Your task to perform on an android device: Open the phone app and click the voicemail tab. Image 0: 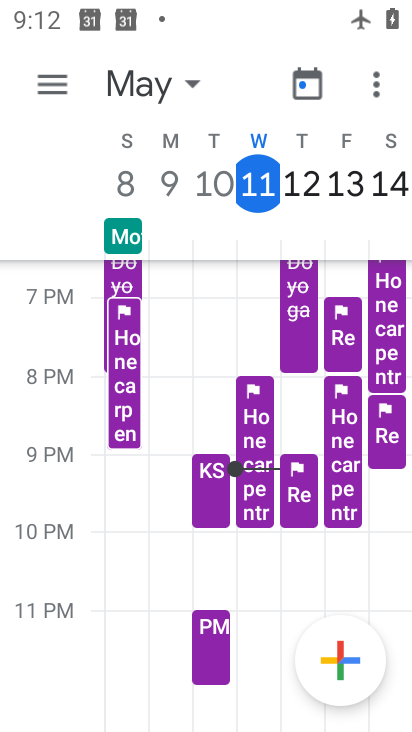
Step 0: press home button
Your task to perform on an android device: Open the phone app and click the voicemail tab. Image 1: 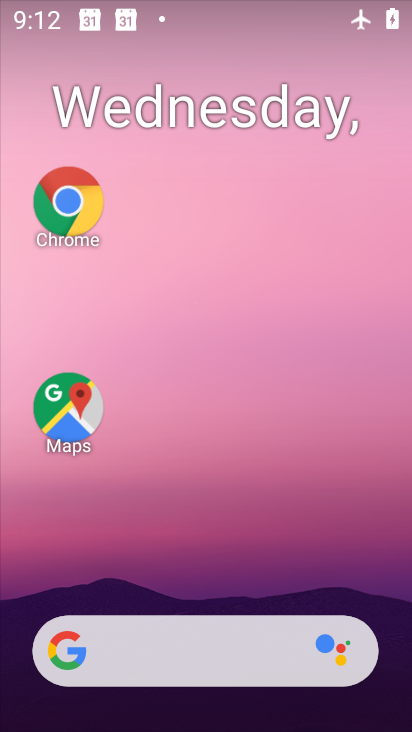
Step 1: drag from (184, 599) to (17, 111)
Your task to perform on an android device: Open the phone app and click the voicemail tab. Image 2: 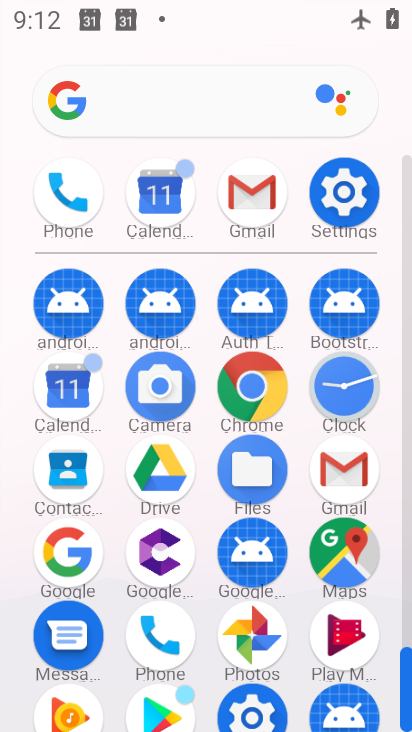
Step 2: click (167, 624)
Your task to perform on an android device: Open the phone app and click the voicemail tab. Image 3: 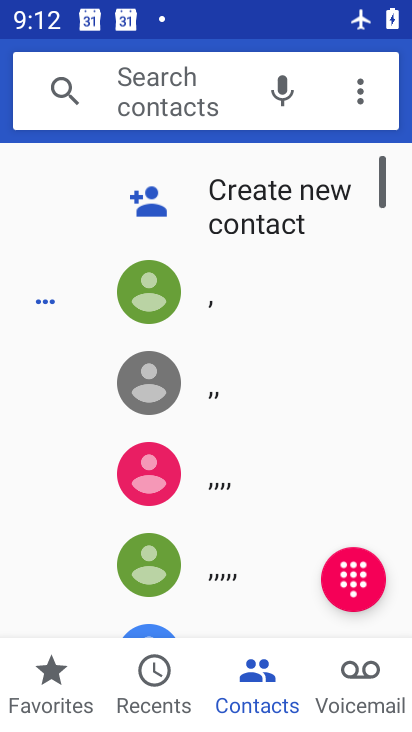
Step 3: click (351, 698)
Your task to perform on an android device: Open the phone app and click the voicemail tab. Image 4: 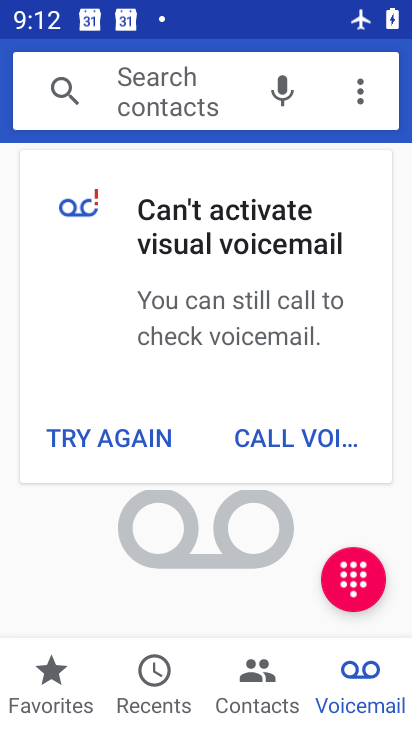
Step 4: task complete